Your task to perform on an android device: check google app version Image 0: 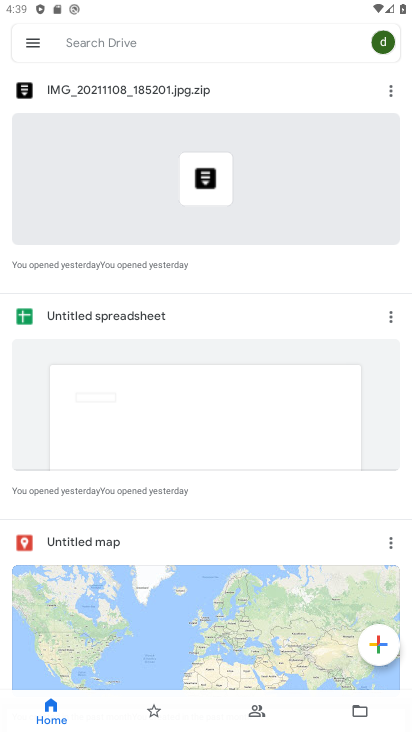
Step 0: press home button
Your task to perform on an android device: check google app version Image 1: 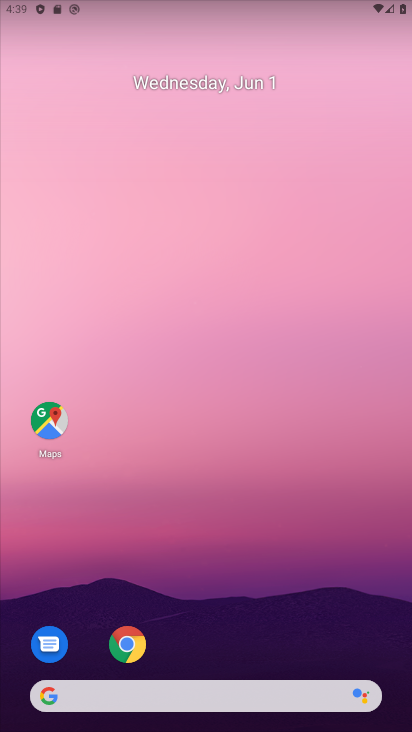
Step 1: drag from (223, 688) to (372, 188)
Your task to perform on an android device: check google app version Image 2: 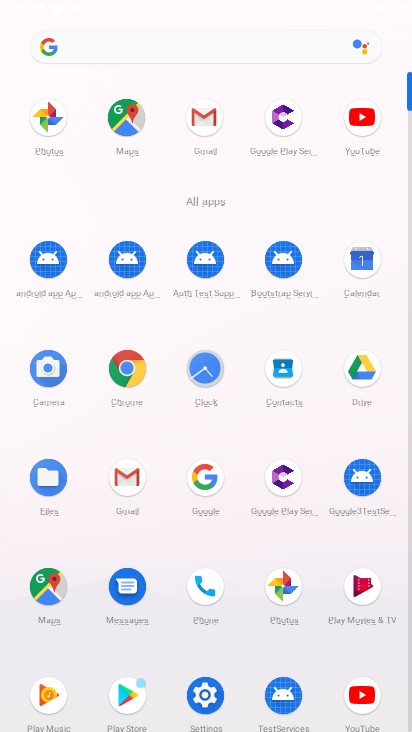
Step 2: click (197, 697)
Your task to perform on an android device: check google app version Image 3: 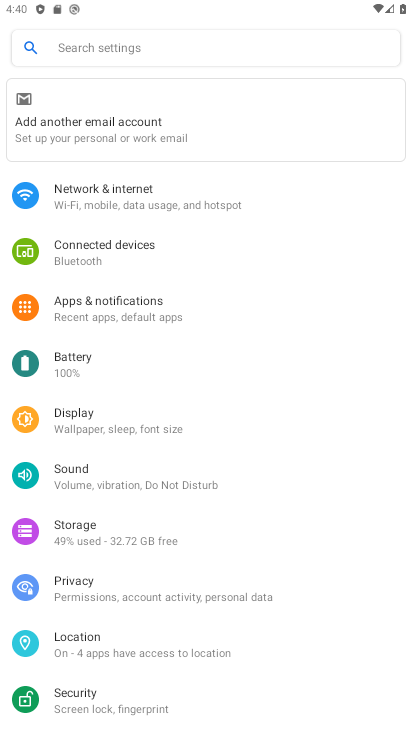
Step 3: drag from (166, 585) to (273, 520)
Your task to perform on an android device: check google app version Image 4: 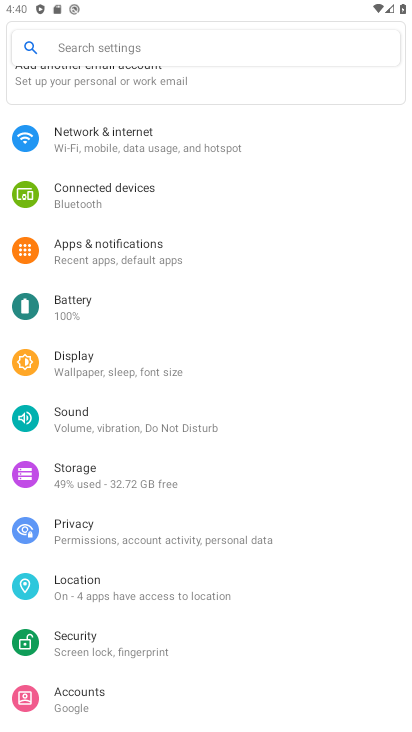
Step 4: click (158, 254)
Your task to perform on an android device: check google app version Image 5: 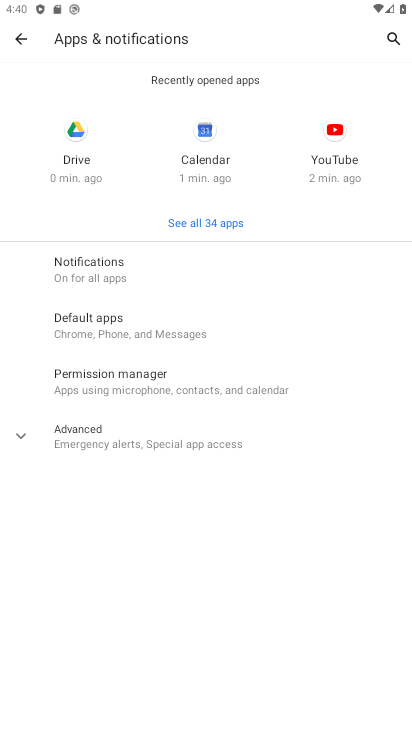
Step 5: click (168, 439)
Your task to perform on an android device: check google app version Image 6: 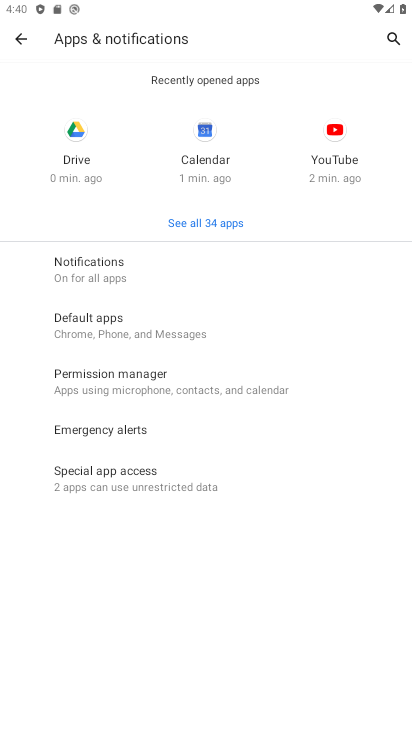
Step 6: click (210, 233)
Your task to perform on an android device: check google app version Image 7: 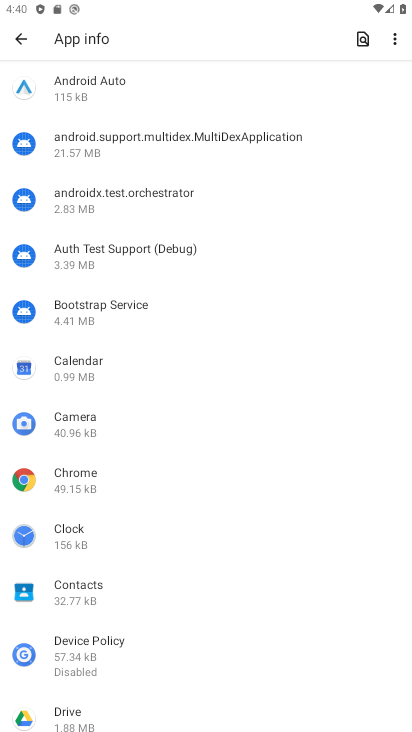
Step 7: drag from (156, 551) to (294, 208)
Your task to perform on an android device: check google app version Image 8: 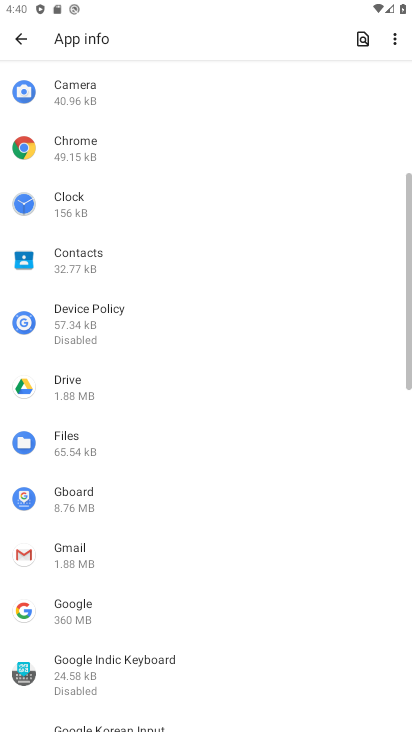
Step 8: click (130, 592)
Your task to perform on an android device: check google app version Image 9: 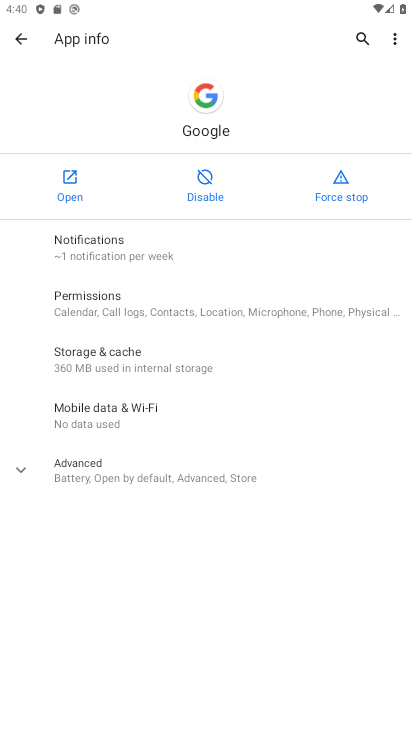
Step 9: click (162, 474)
Your task to perform on an android device: check google app version Image 10: 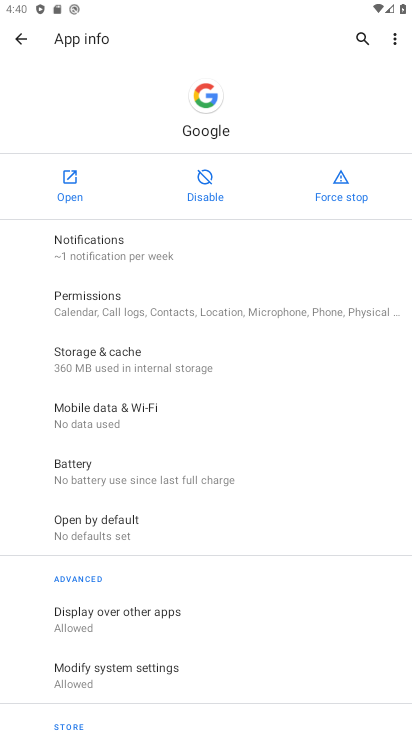
Step 10: task complete